Your task to perform on an android device: Is it going to rain this weekend? Image 0: 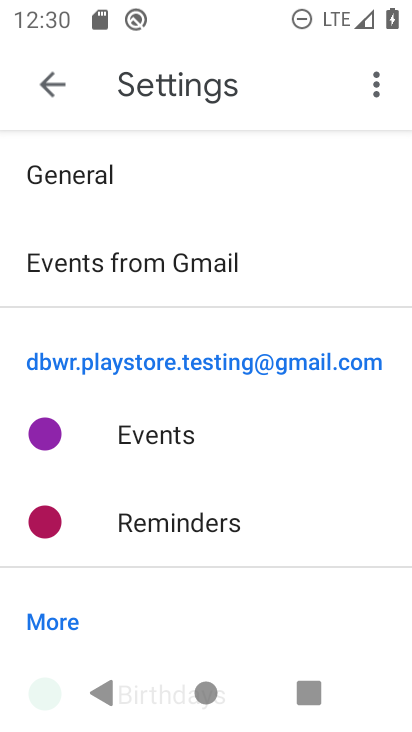
Step 0: press home button
Your task to perform on an android device: Is it going to rain this weekend? Image 1: 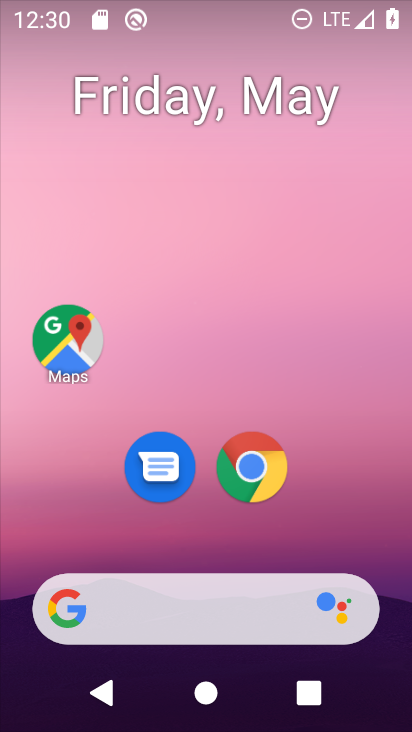
Step 1: drag from (6, 196) to (406, 190)
Your task to perform on an android device: Is it going to rain this weekend? Image 2: 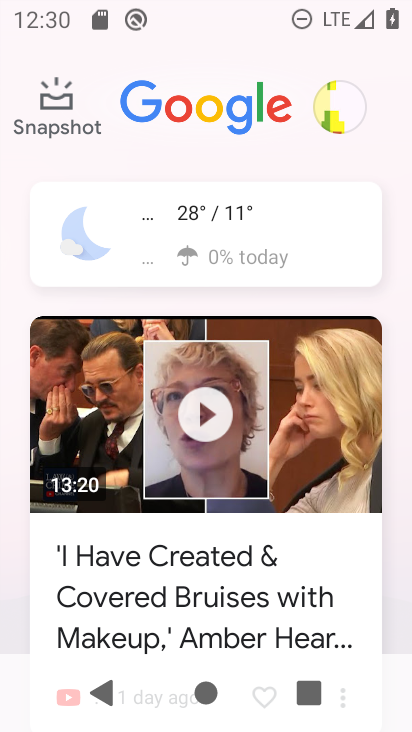
Step 2: click (203, 248)
Your task to perform on an android device: Is it going to rain this weekend? Image 3: 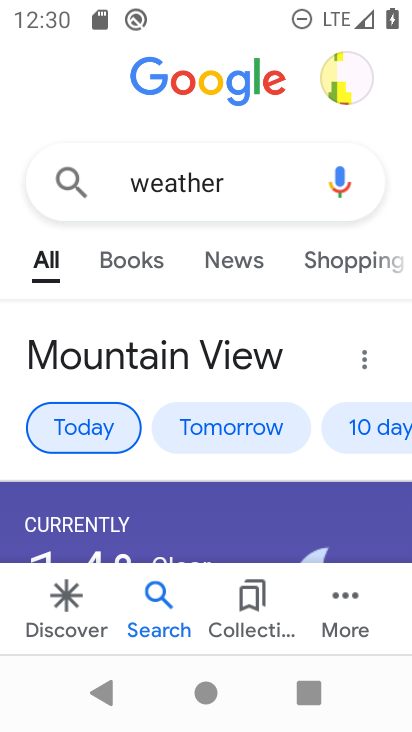
Step 3: click (366, 426)
Your task to perform on an android device: Is it going to rain this weekend? Image 4: 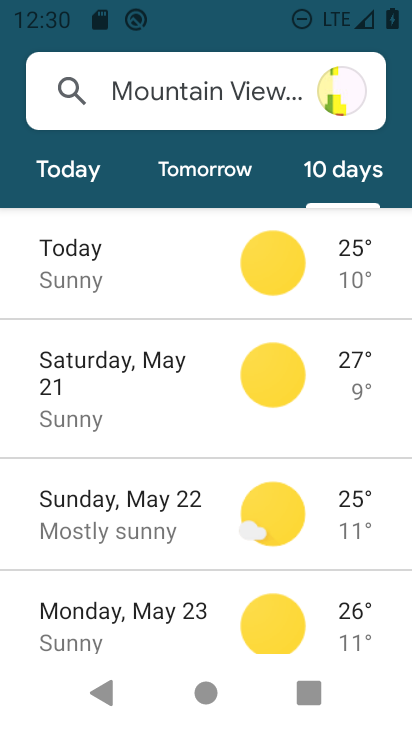
Step 4: task complete